Your task to perform on an android device: Open the Play Movies app and select the watchlist tab. Image 0: 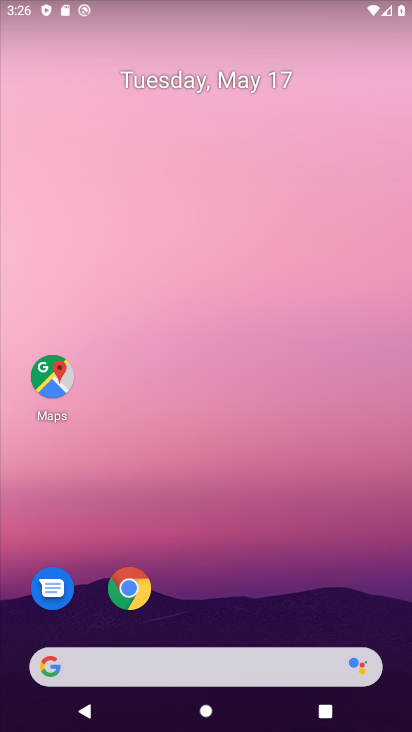
Step 0: drag from (257, 523) to (217, 47)
Your task to perform on an android device: Open the Play Movies app and select the watchlist tab. Image 1: 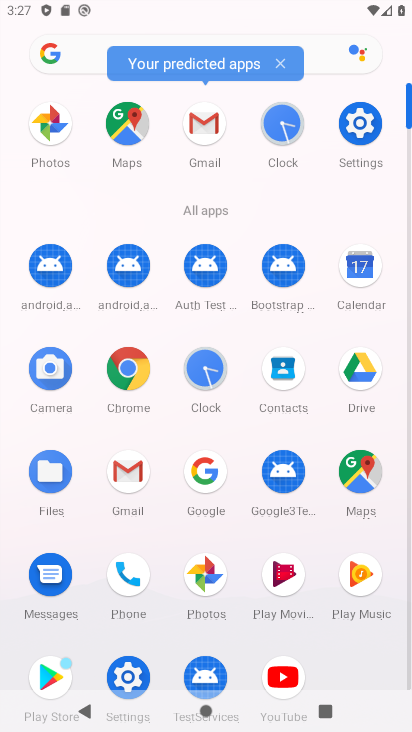
Step 1: click (284, 573)
Your task to perform on an android device: Open the Play Movies app and select the watchlist tab. Image 2: 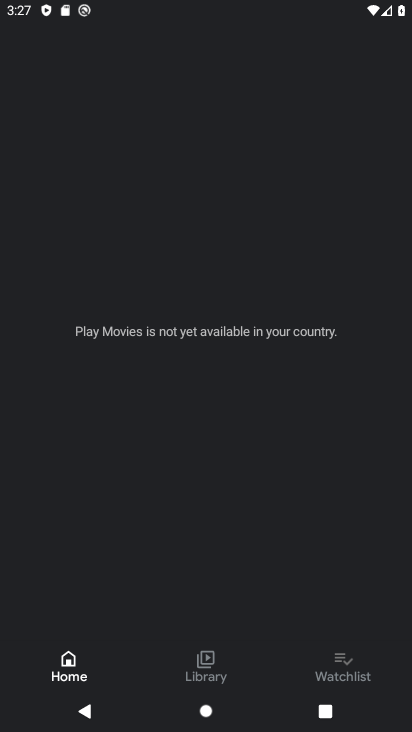
Step 2: click (339, 671)
Your task to perform on an android device: Open the Play Movies app and select the watchlist tab. Image 3: 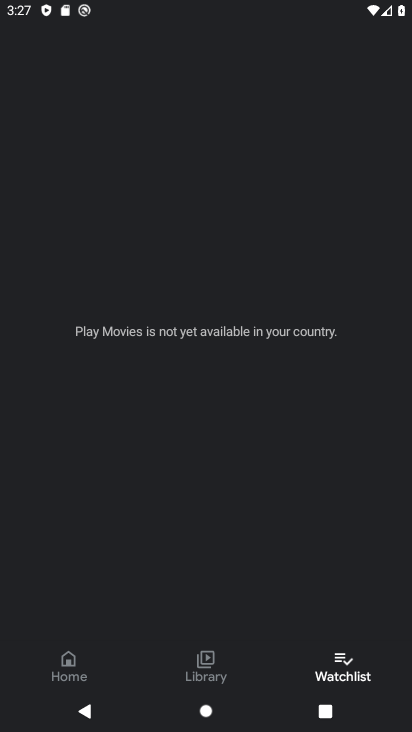
Step 3: task complete